Your task to perform on an android device: Go to eBay Image 0: 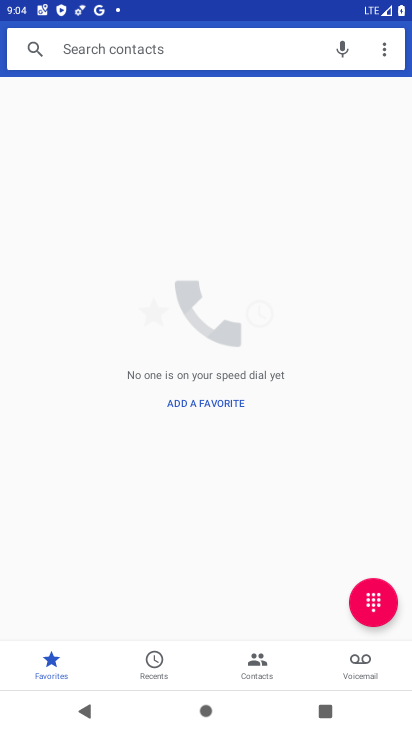
Step 0: press home button
Your task to perform on an android device: Go to eBay Image 1: 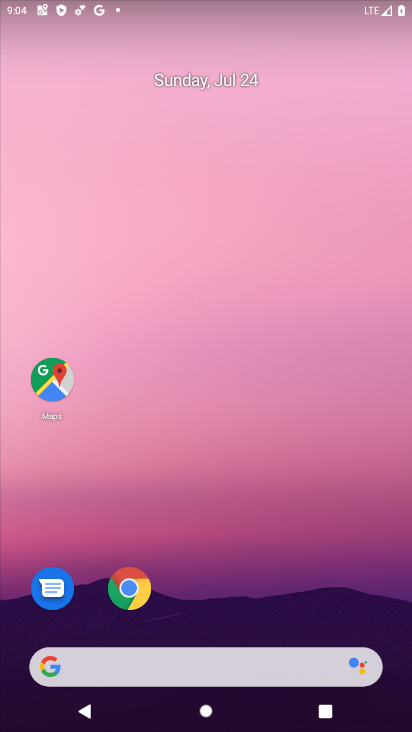
Step 1: click (129, 582)
Your task to perform on an android device: Go to eBay Image 2: 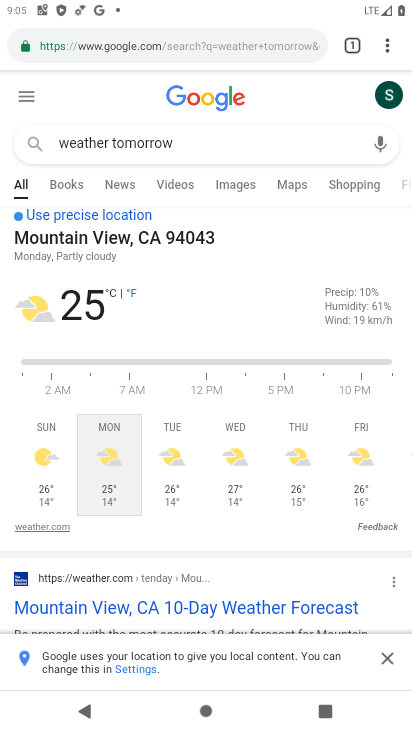
Step 2: click (169, 52)
Your task to perform on an android device: Go to eBay Image 3: 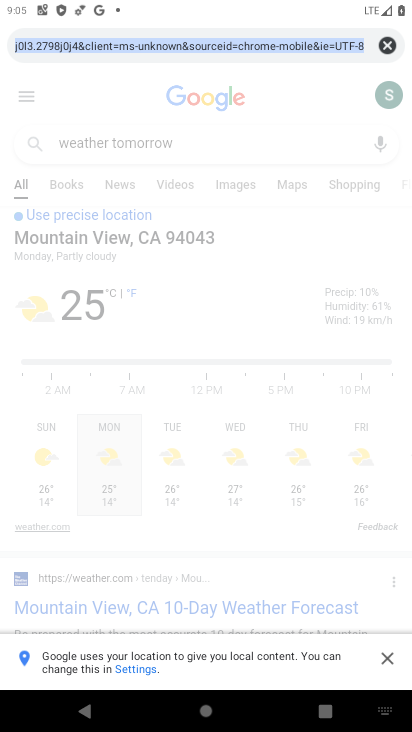
Step 3: type "ebay"
Your task to perform on an android device: Go to eBay Image 4: 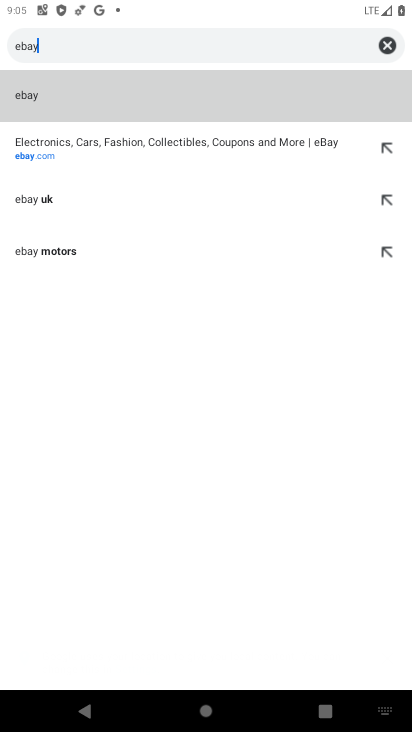
Step 4: click (258, 142)
Your task to perform on an android device: Go to eBay Image 5: 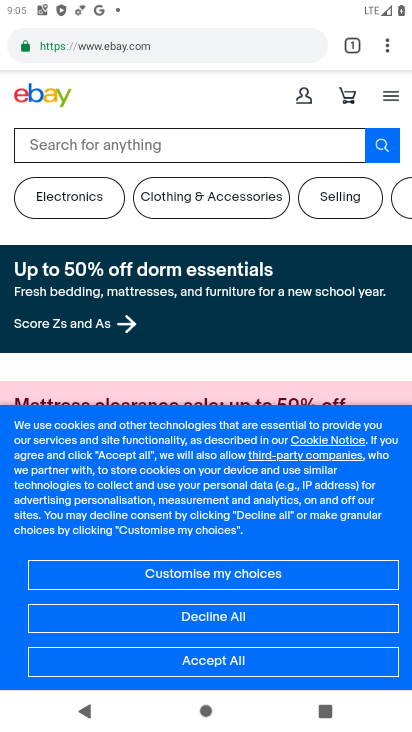
Step 5: task complete